Your task to perform on an android device: turn on the 12-hour format for clock Image 0: 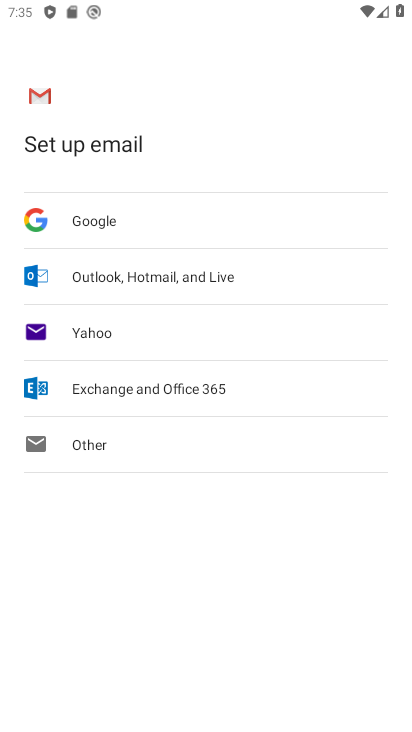
Step 0: press home button
Your task to perform on an android device: turn on the 12-hour format for clock Image 1: 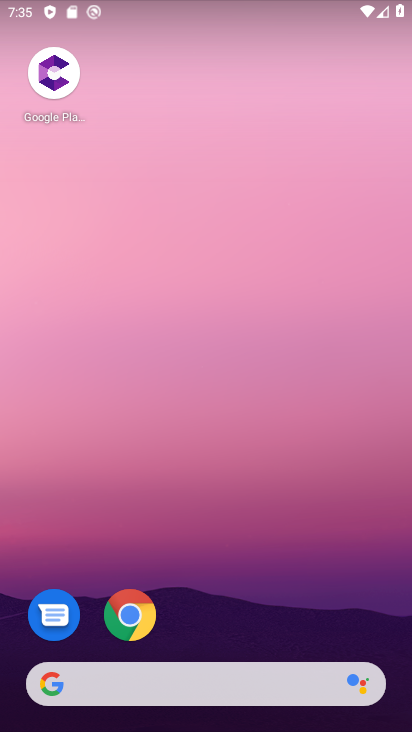
Step 1: drag from (237, 461) to (235, 188)
Your task to perform on an android device: turn on the 12-hour format for clock Image 2: 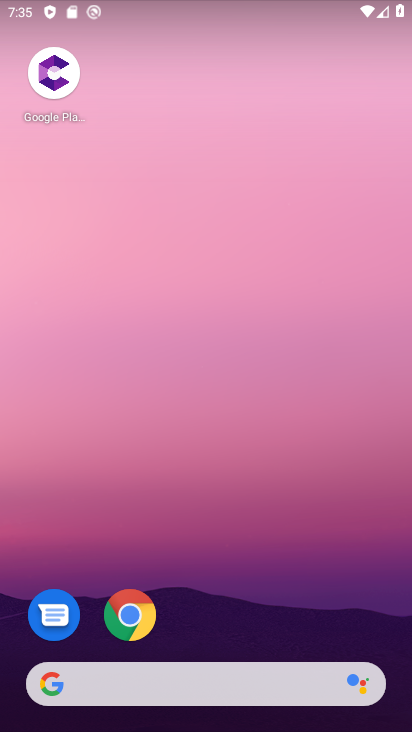
Step 2: click (300, 578)
Your task to perform on an android device: turn on the 12-hour format for clock Image 3: 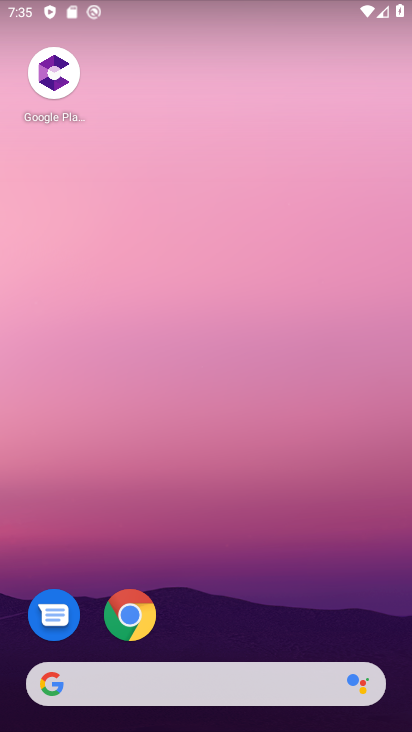
Step 3: drag from (223, 672) to (238, 270)
Your task to perform on an android device: turn on the 12-hour format for clock Image 4: 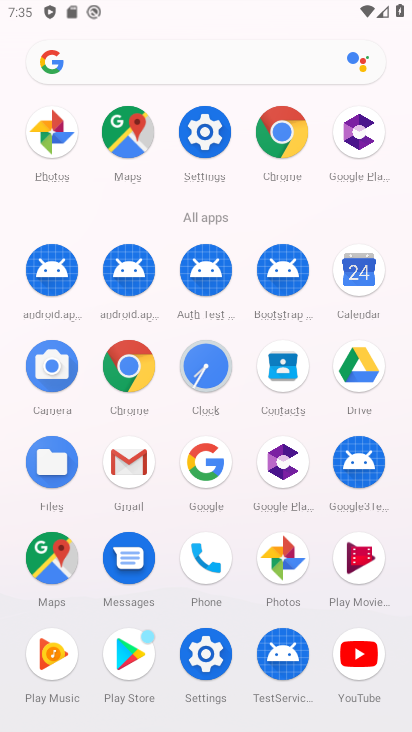
Step 4: click (202, 359)
Your task to perform on an android device: turn on the 12-hour format for clock Image 5: 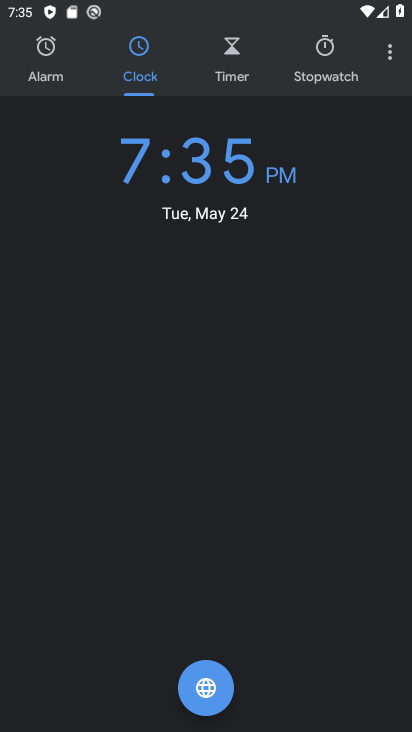
Step 5: click (388, 46)
Your task to perform on an android device: turn on the 12-hour format for clock Image 6: 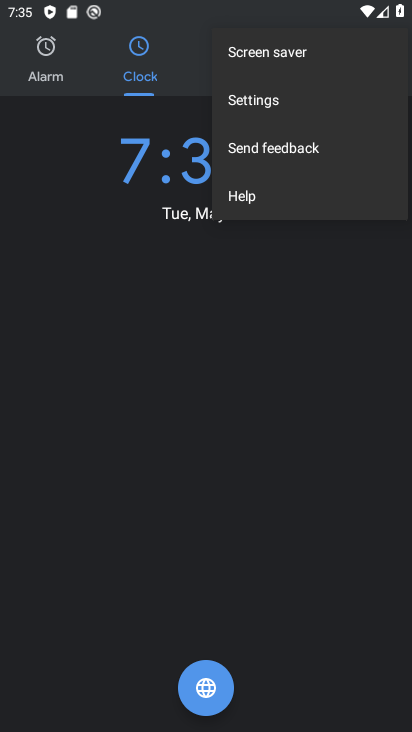
Step 6: click (261, 112)
Your task to perform on an android device: turn on the 12-hour format for clock Image 7: 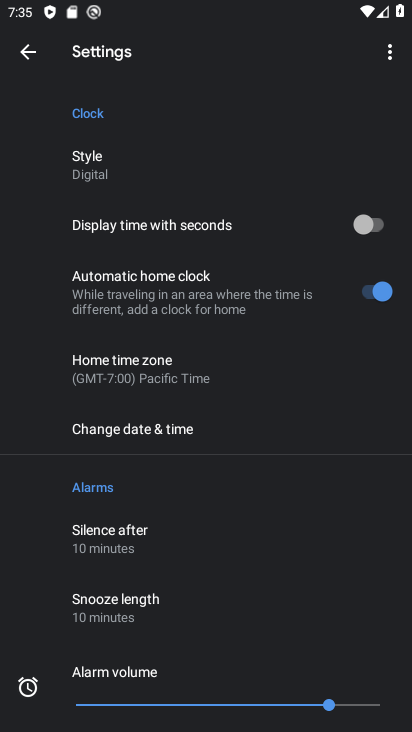
Step 7: click (198, 426)
Your task to perform on an android device: turn on the 12-hour format for clock Image 8: 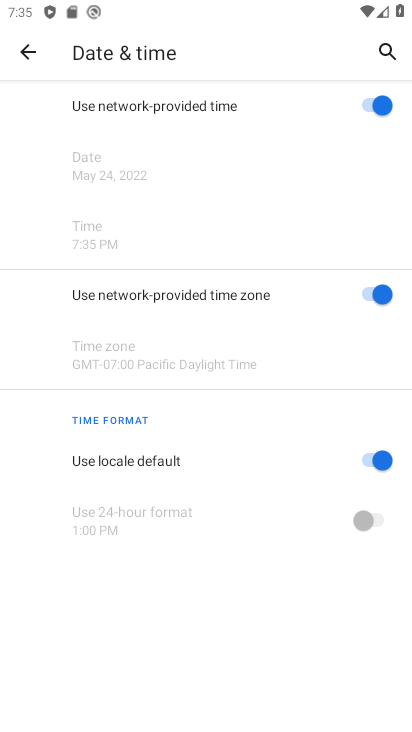
Step 8: click (369, 467)
Your task to perform on an android device: turn on the 12-hour format for clock Image 9: 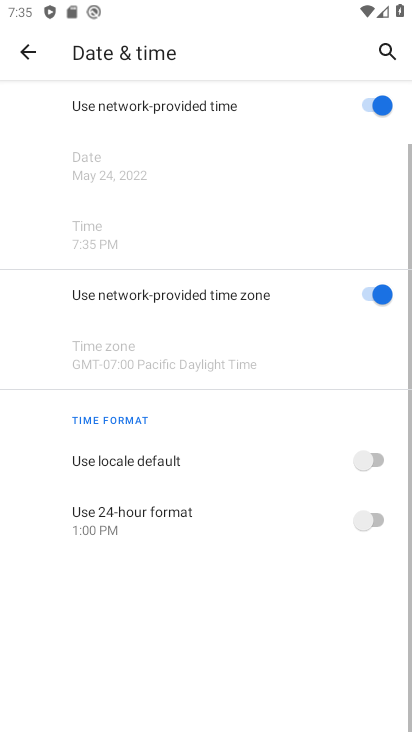
Step 9: click (375, 518)
Your task to perform on an android device: turn on the 12-hour format for clock Image 10: 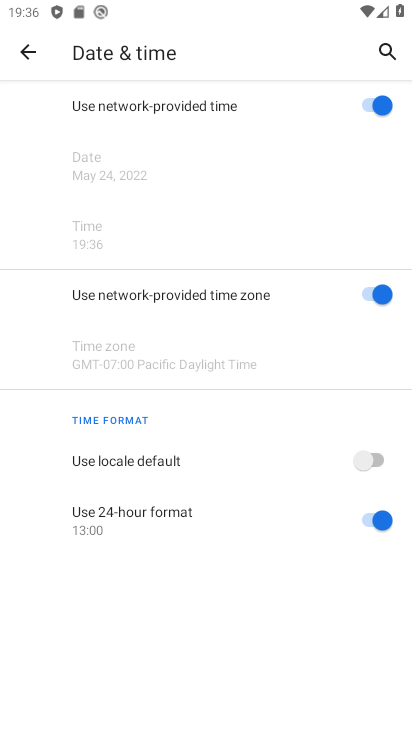
Step 10: task complete